Your task to perform on an android device: Go to Wikipedia Image 0: 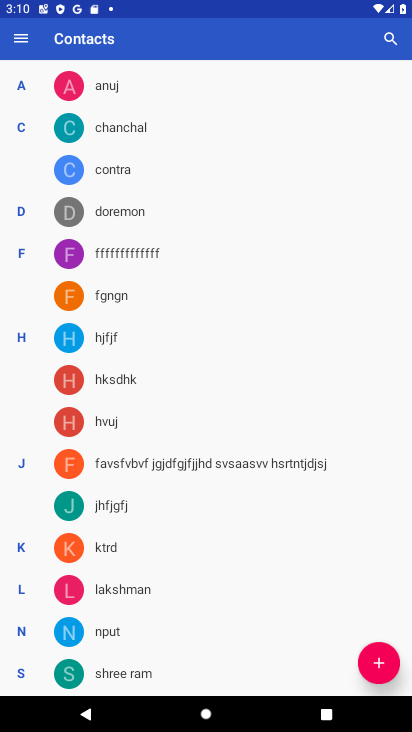
Step 0: press home button
Your task to perform on an android device: Go to Wikipedia Image 1: 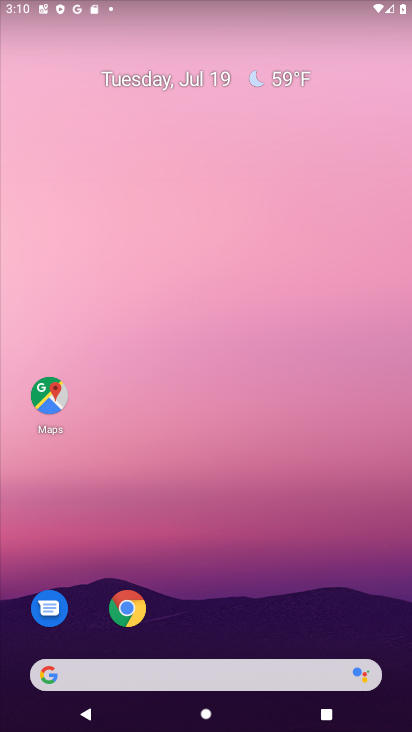
Step 1: click (131, 604)
Your task to perform on an android device: Go to Wikipedia Image 2: 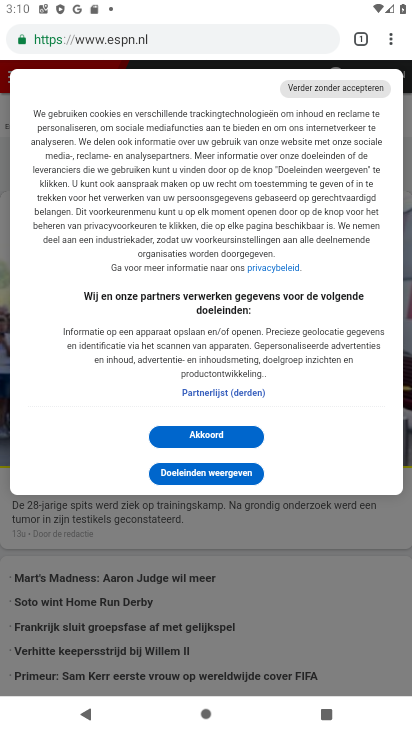
Step 2: click (362, 30)
Your task to perform on an android device: Go to Wikipedia Image 3: 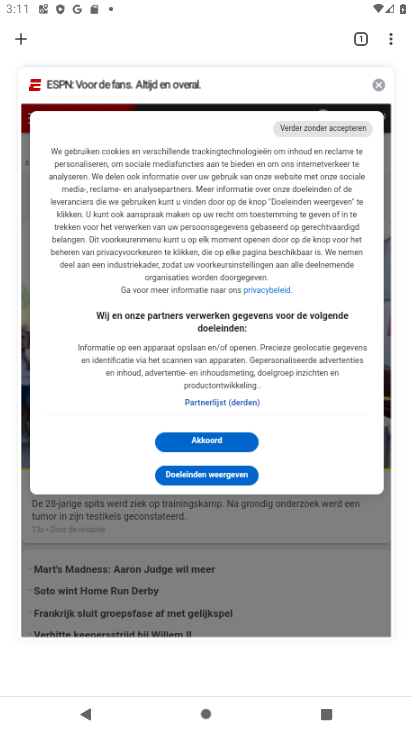
Step 3: click (13, 35)
Your task to perform on an android device: Go to Wikipedia Image 4: 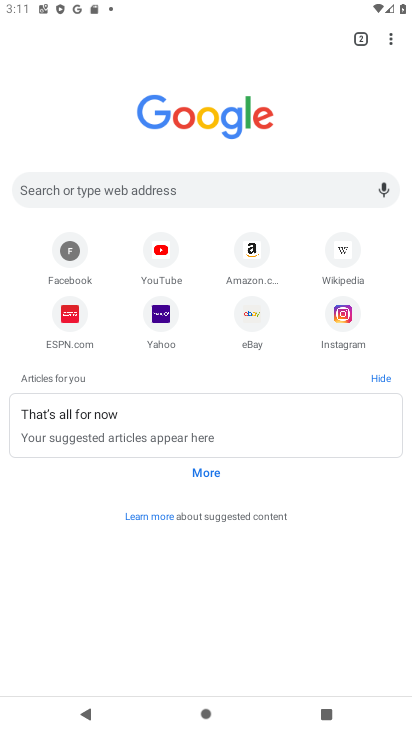
Step 4: click (335, 248)
Your task to perform on an android device: Go to Wikipedia Image 5: 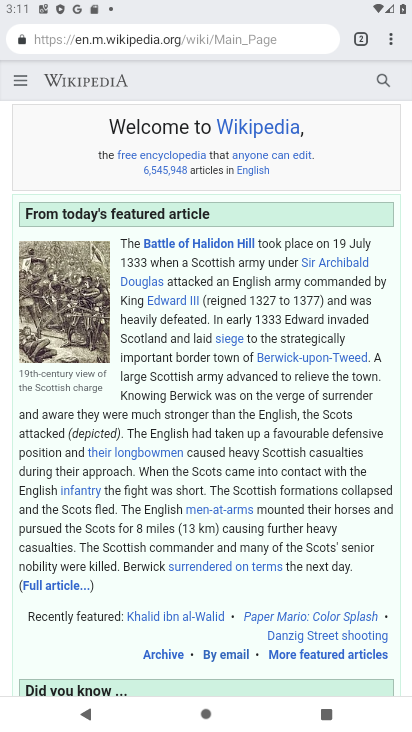
Step 5: task complete